Your task to perform on an android device: Open settings Image 0: 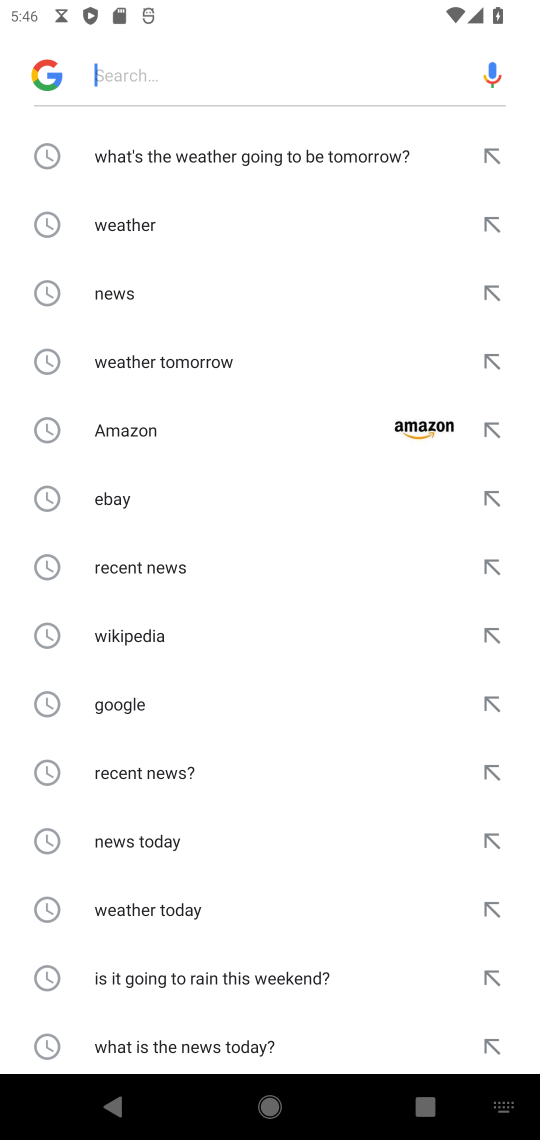
Step 0: press home button
Your task to perform on an android device: Open settings Image 1: 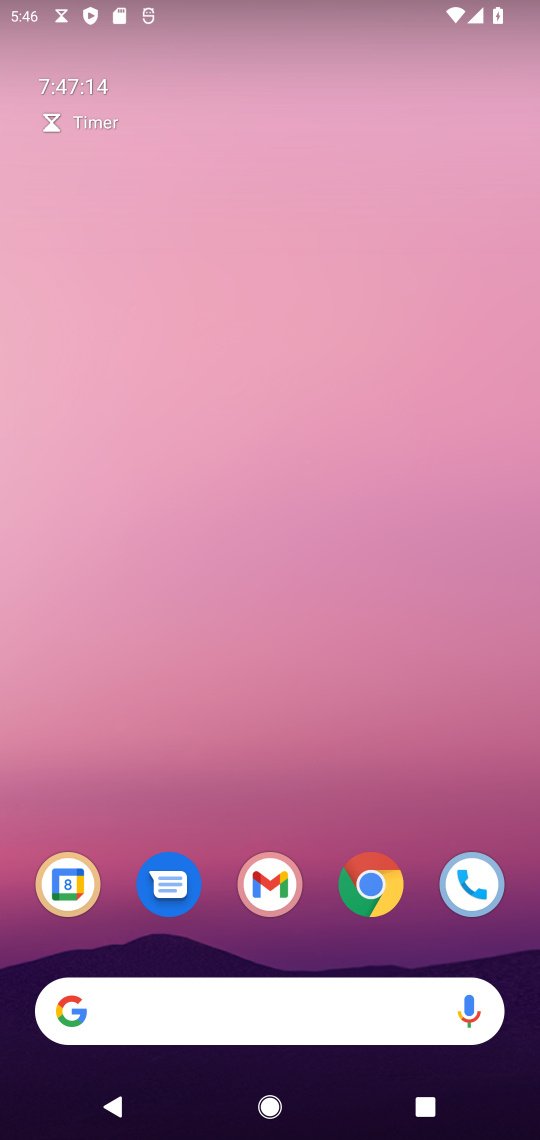
Step 1: drag from (316, 829) to (275, 124)
Your task to perform on an android device: Open settings Image 2: 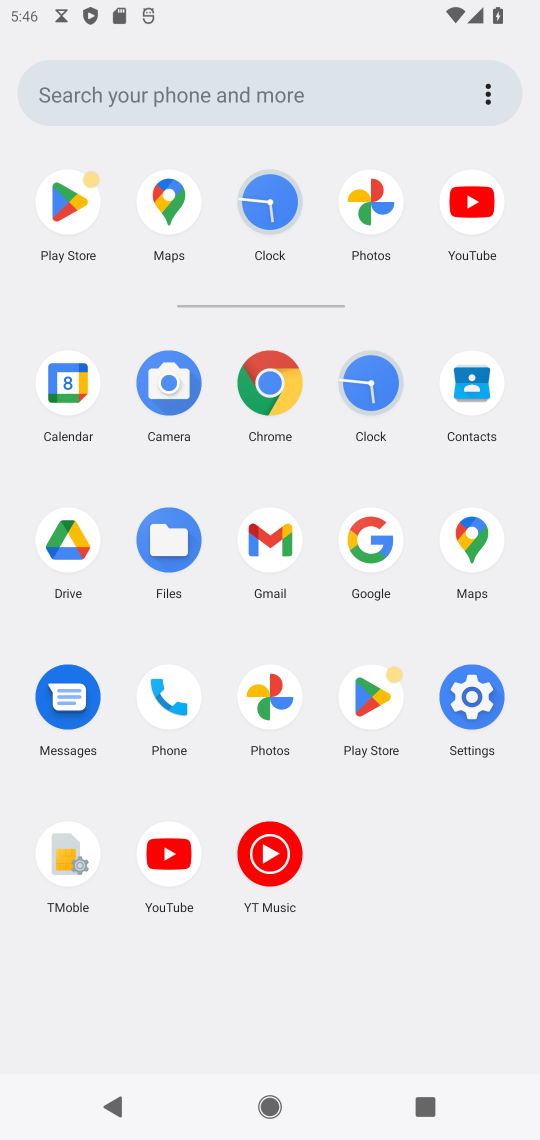
Step 2: click (485, 706)
Your task to perform on an android device: Open settings Image 3: 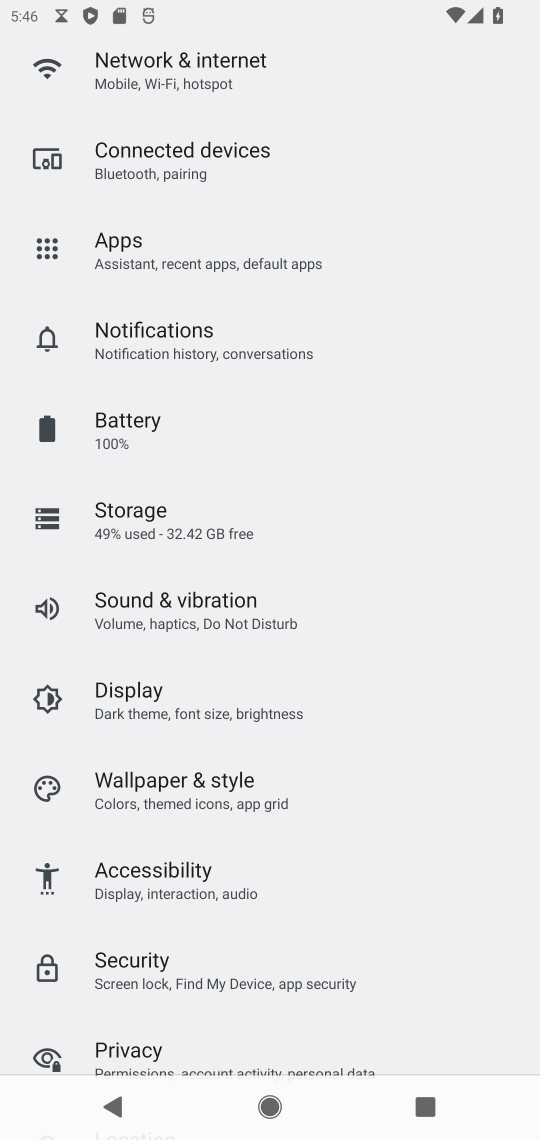
Step 3: task complete